Your task to perform on an android device: change timer sound Image 0: 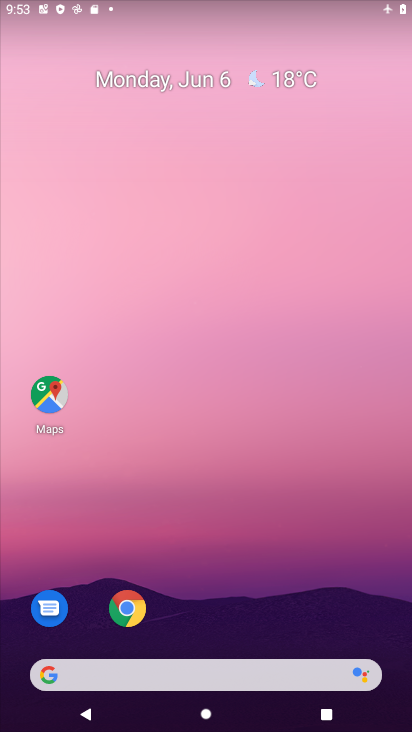
Step 0: drag from (303, 594) to (205, 152)
Your task to perform on an android device: change timer sound Image 1: 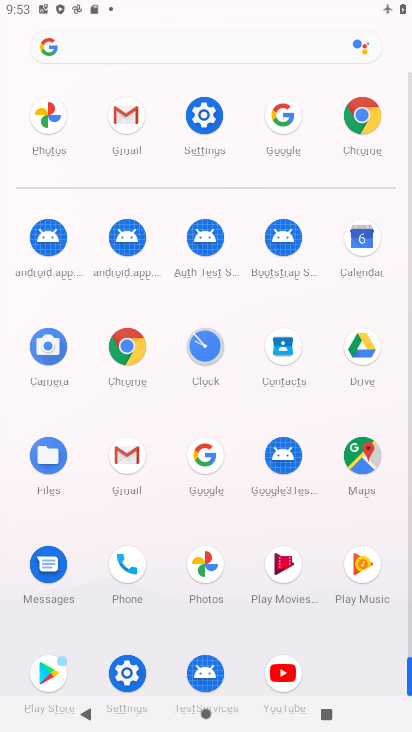
Step 1: click (206, 346)
Your task to perform on an android device: change timer sound Image 2: 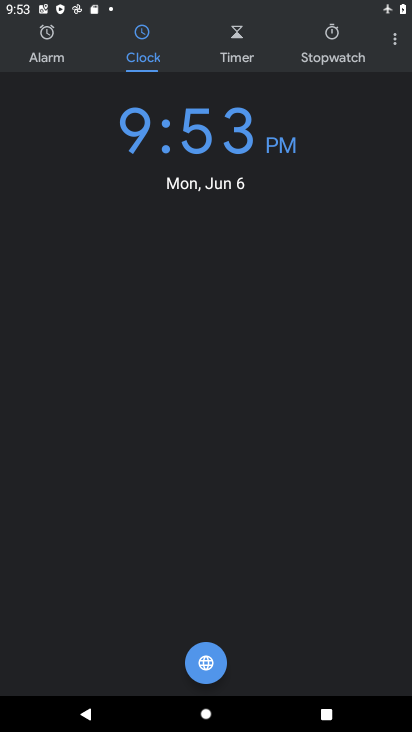
Step 2: click (397, 42)
Your task to perform on an android device: change timer sound Image 3: 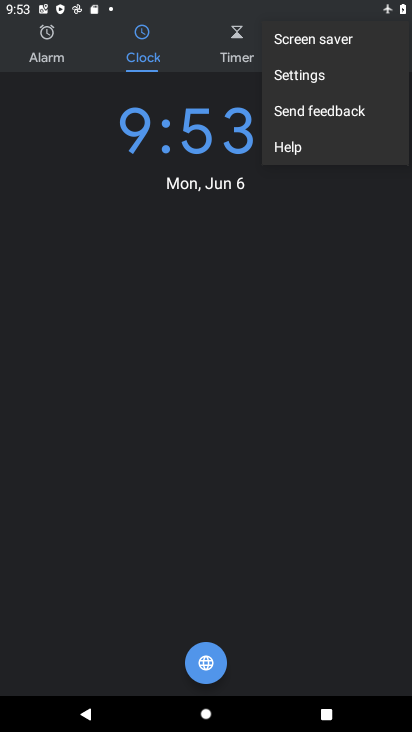
Step 3: click (309, 76)
Your task to perform on an android device: change timer sound Image 4: 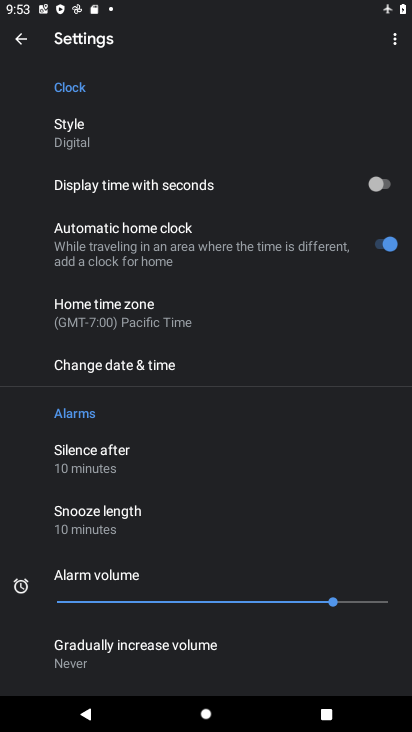
Step 4: drag from (183, 429) to (174, 301)
Your task to perform on an android device: change timer sound Image 5: 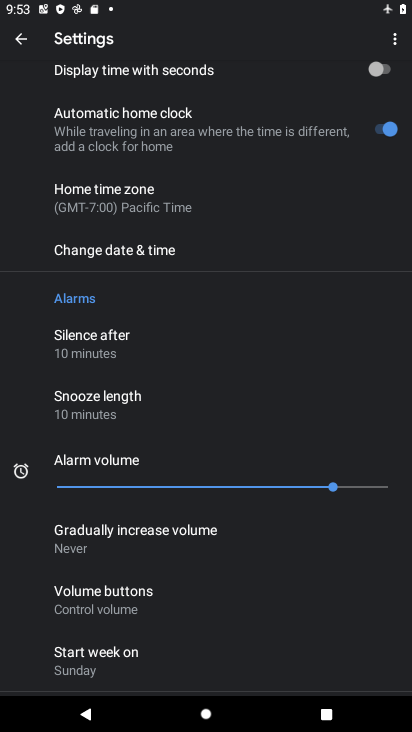
Step 5: drag from (151, 556) to (195, 435)
Your task to perform on an android device: change timer sound Image 6: 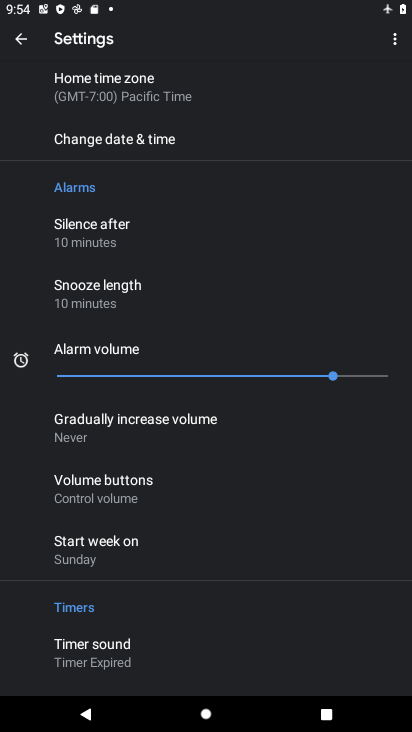
Step 6: drag from (166, 538) to (194, 433)
Your task to perform on an android device: change timer sound Image 7: 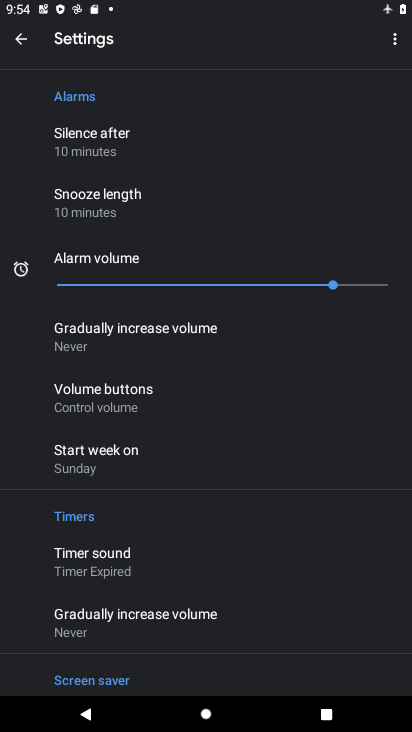
Step 7: click (125, 550)
Your task to perform on an android device: change timer sound Image 8: 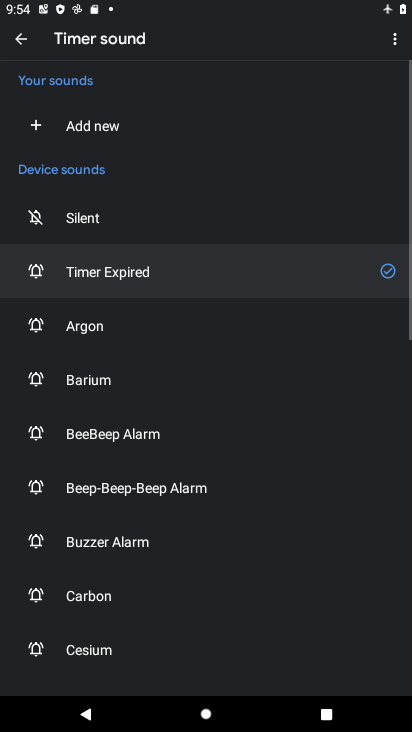
Step 8: drag from (165, 555) to (194, 352)
Your task to perform on an android device: change timer sound Image 9: 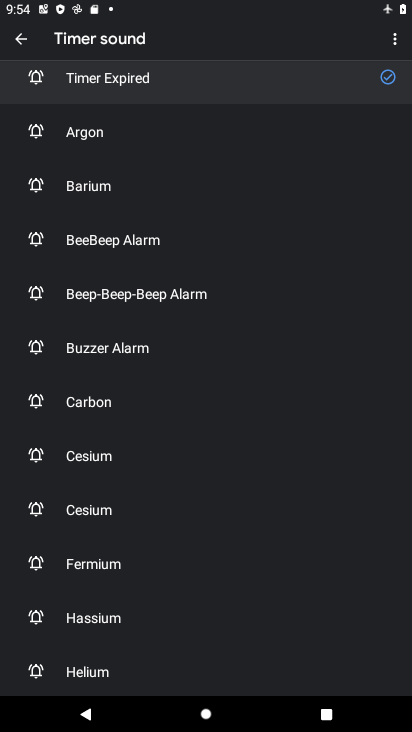
Step 9: drag from (137, 516) to (201, 358)
Your task to perform on an android device: change timer sound Image 10: 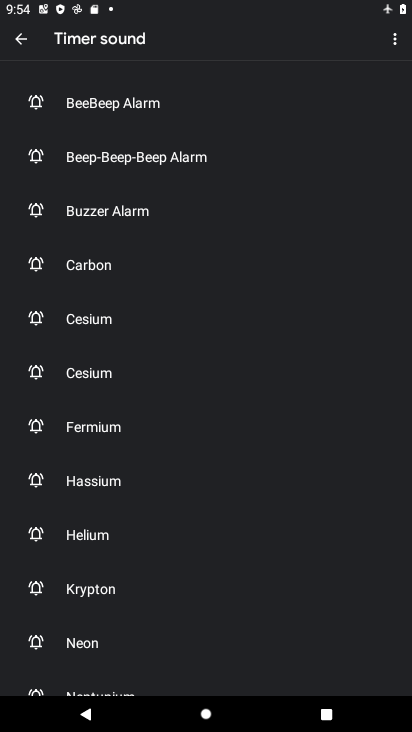
Step 10: drag from (187, 532) to (227, 378)
Your task to perform on an android device: change timer sound Image 11: 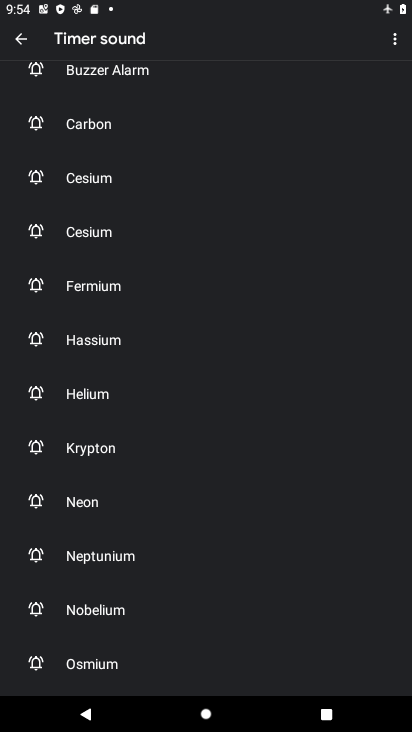
Step 11: drag from (193, 588) to (231, 343)
Your task to perform on an android device: change timer sound Image 12: 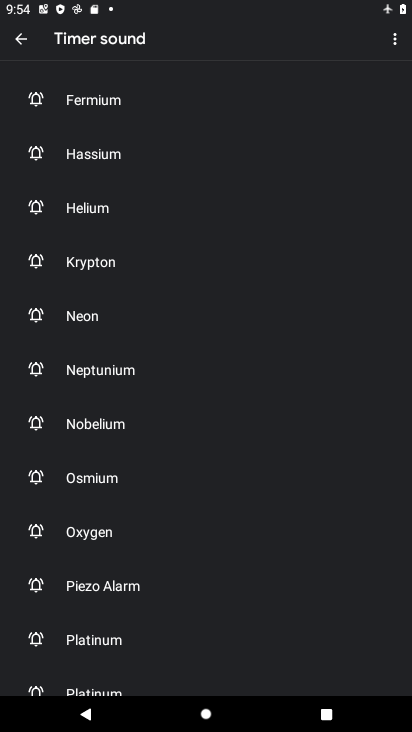
Step 12: drag from (184, 572) to (258, 316)
Your task to perform on an android device: change timer sound Image 13: 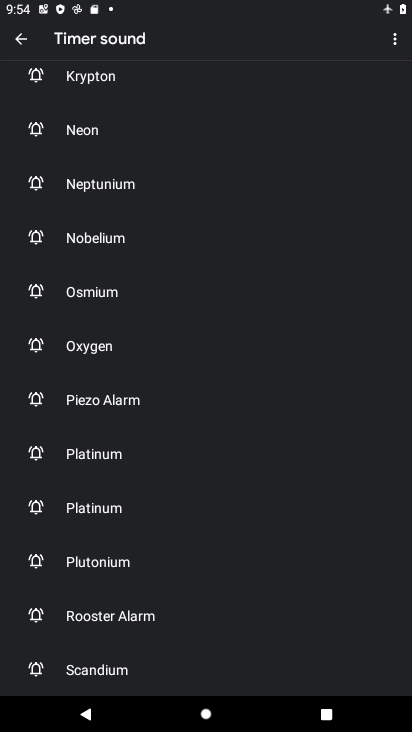
Step 13: drag from (228, 396) to (238, 215)
Your task to perform on an android device: change timer sound Image 14: 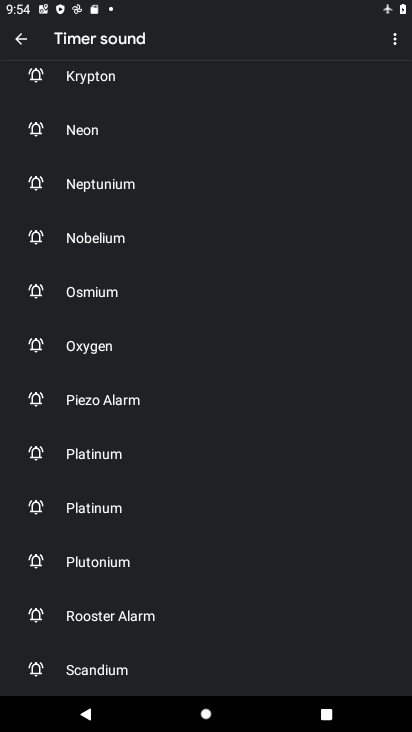
Step 14: click (152, 510)
Your task to perform on an android device: change timer sound Image 15: 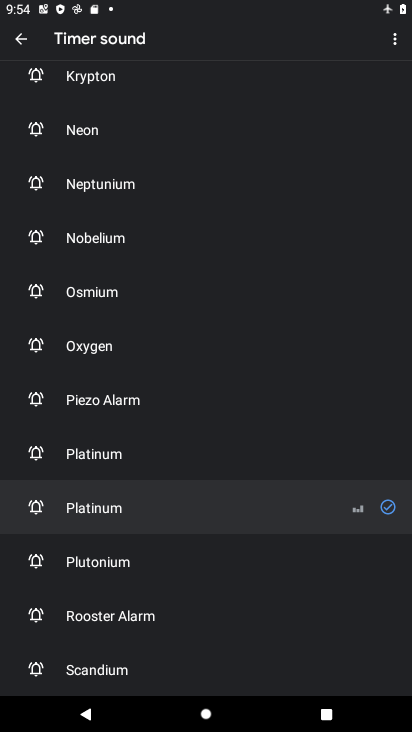
Step 15: task complete